Your task to perform on an android device: Open the phone app and click the voicemail tab. Image 0: 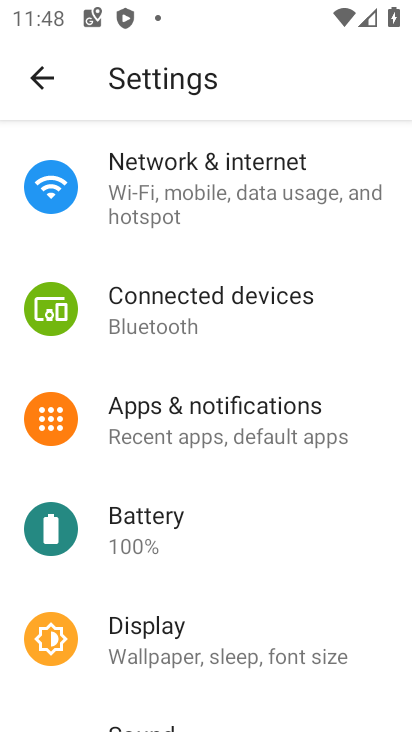
Step 0: drag from (331, 630) to (289, 330)
Your task to perform on an android device: Open the phone app and click the voicemail tab. Image 1: 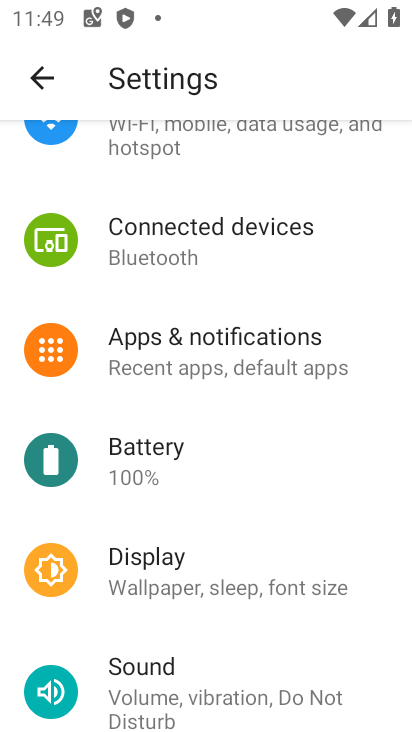
Step 1: press home button
Your task to perform on an android device: Open the phone app and click the voicemail tab. Image 2: 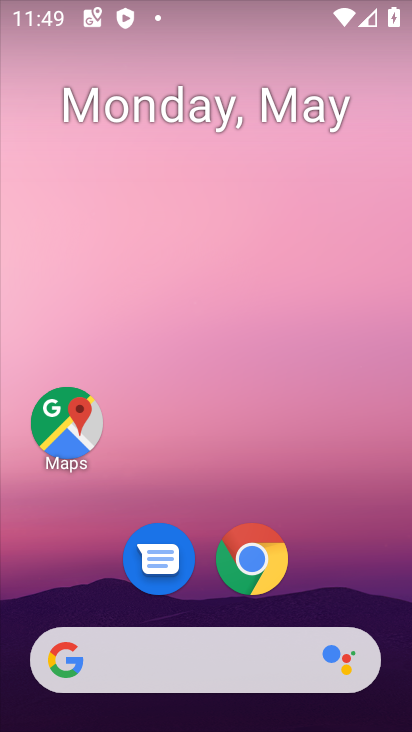
Step 2: drag from (367, 541) to (334, 51)
Your task to perform on an android device: Open the phone app and click the voicemail tab. Image 3: 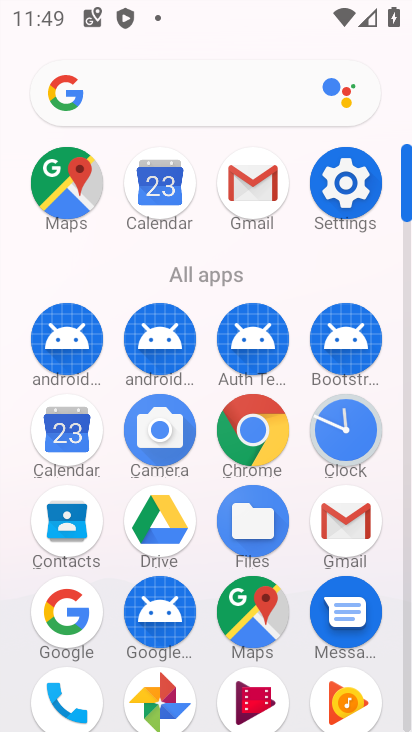
Step 3: click (329, 204)
Your task to perform on an android device: Open the phone app and click the voicemail tab. Image 4: 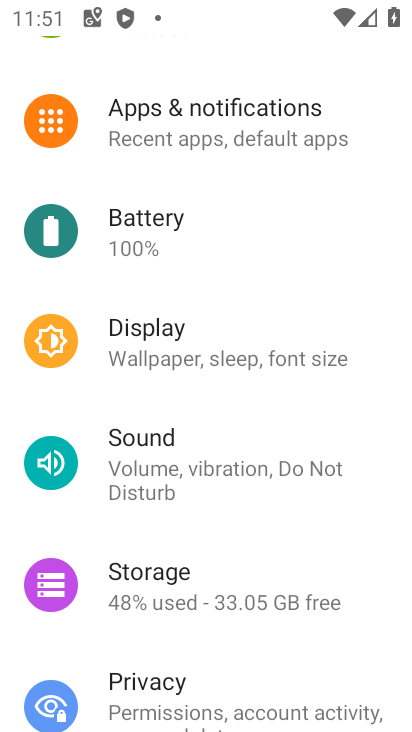
Step 4: task complete